Your task to perform on an android device: make emails show in primary in the gmail app Image 0: 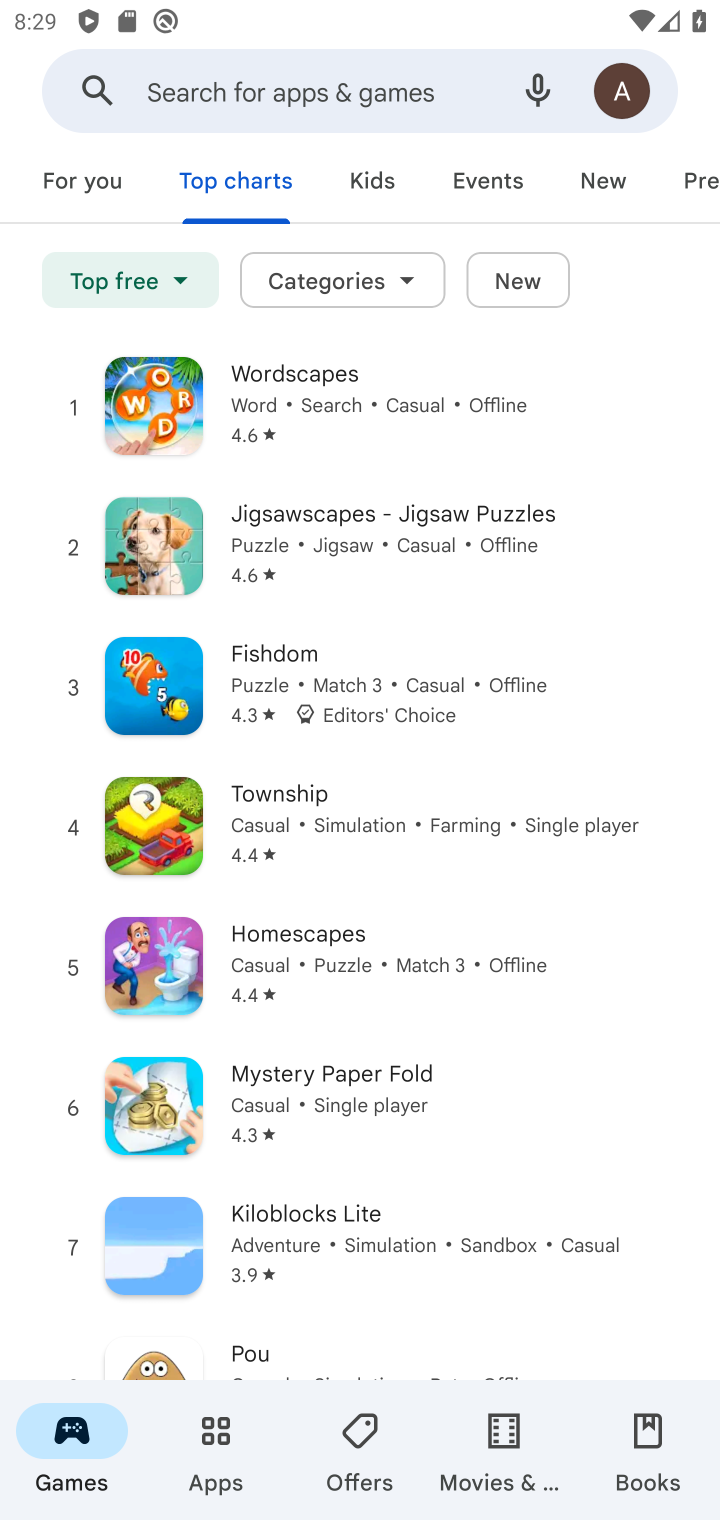
Step 0: press home button
Your task to perform on an android device: make emails show in primary in the gmail app Image 1: 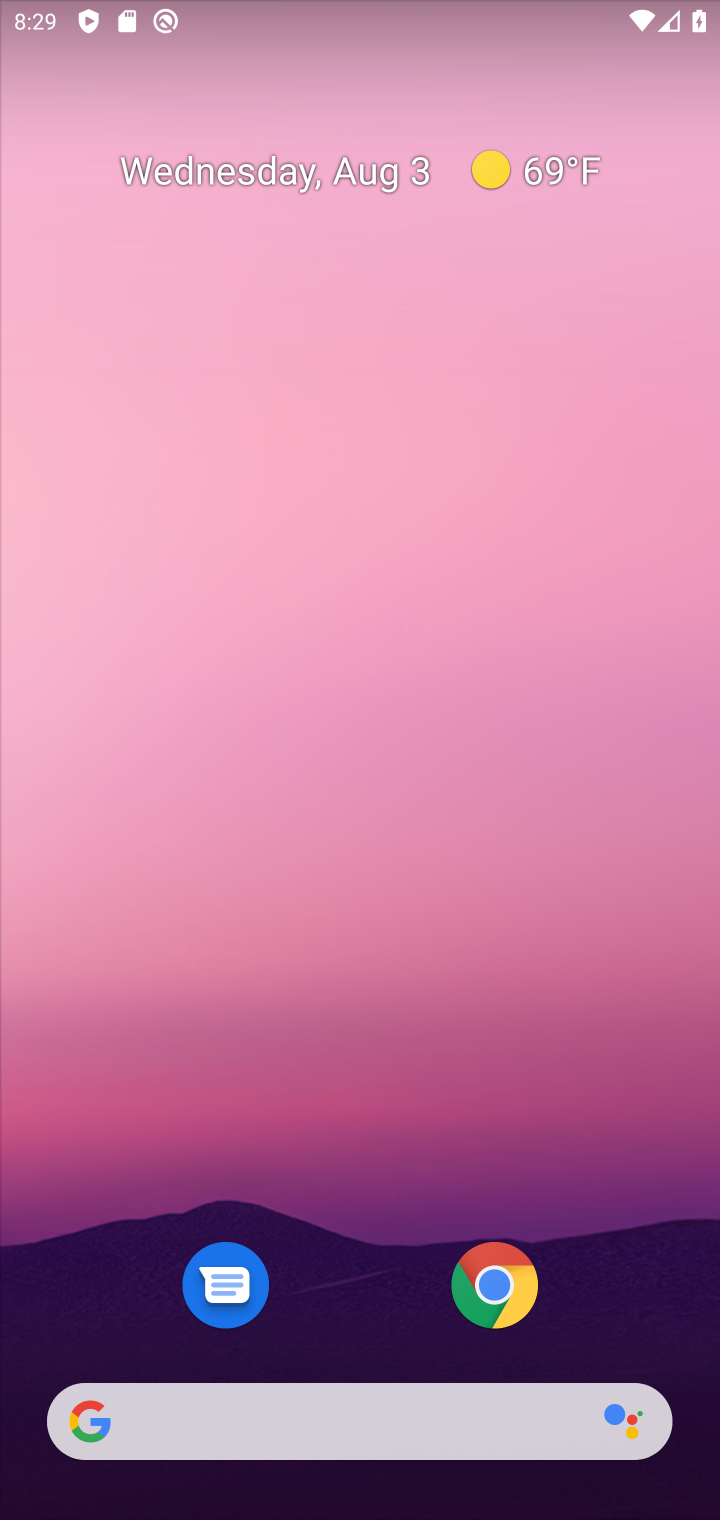
Step 1: drag from (676, 1282) to (644, 634)
Your task to perform on an android device: make emails show in primary in the gmail app Image 2: 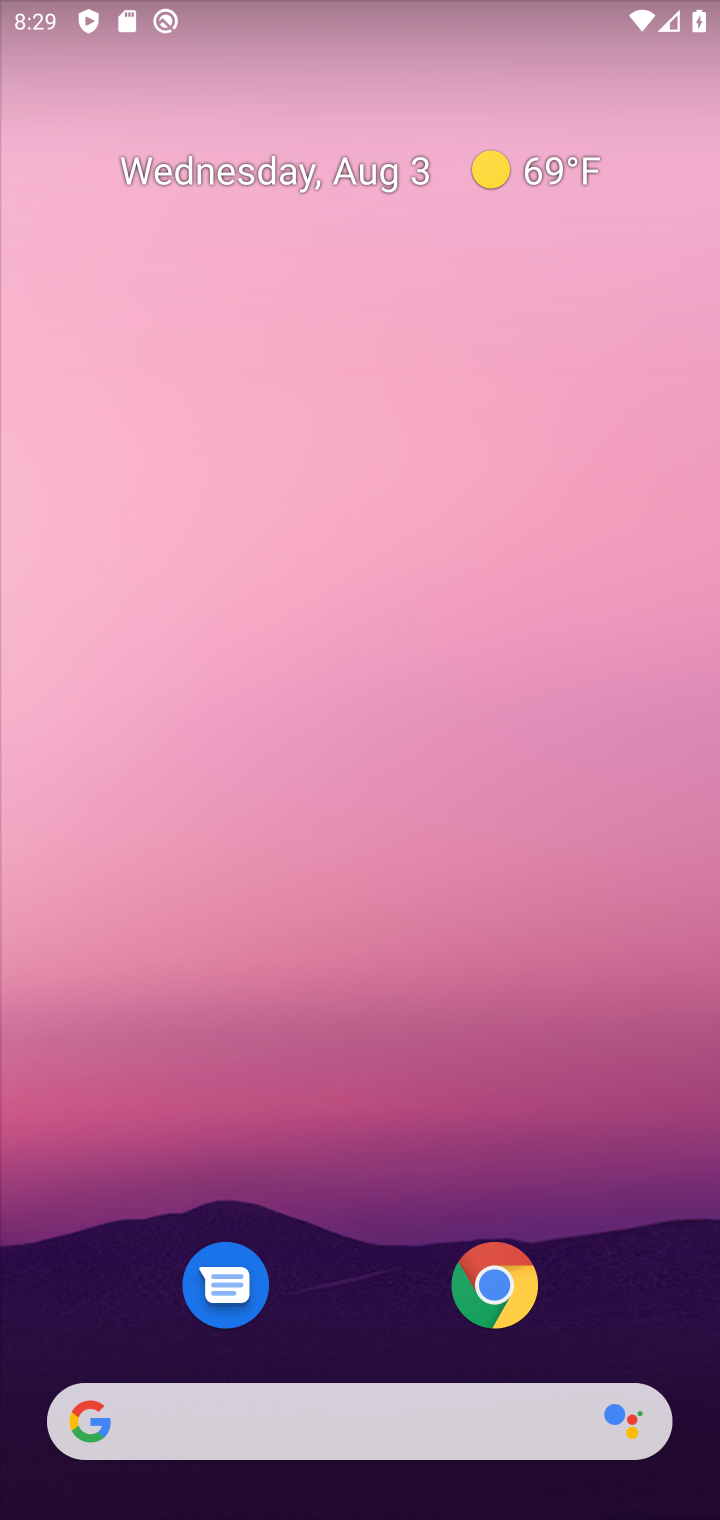
Step 2: drag from (598, 1265) to (532, 317)
Your task to perform on an android device: make emails show in primary in the gmail app Image 3: 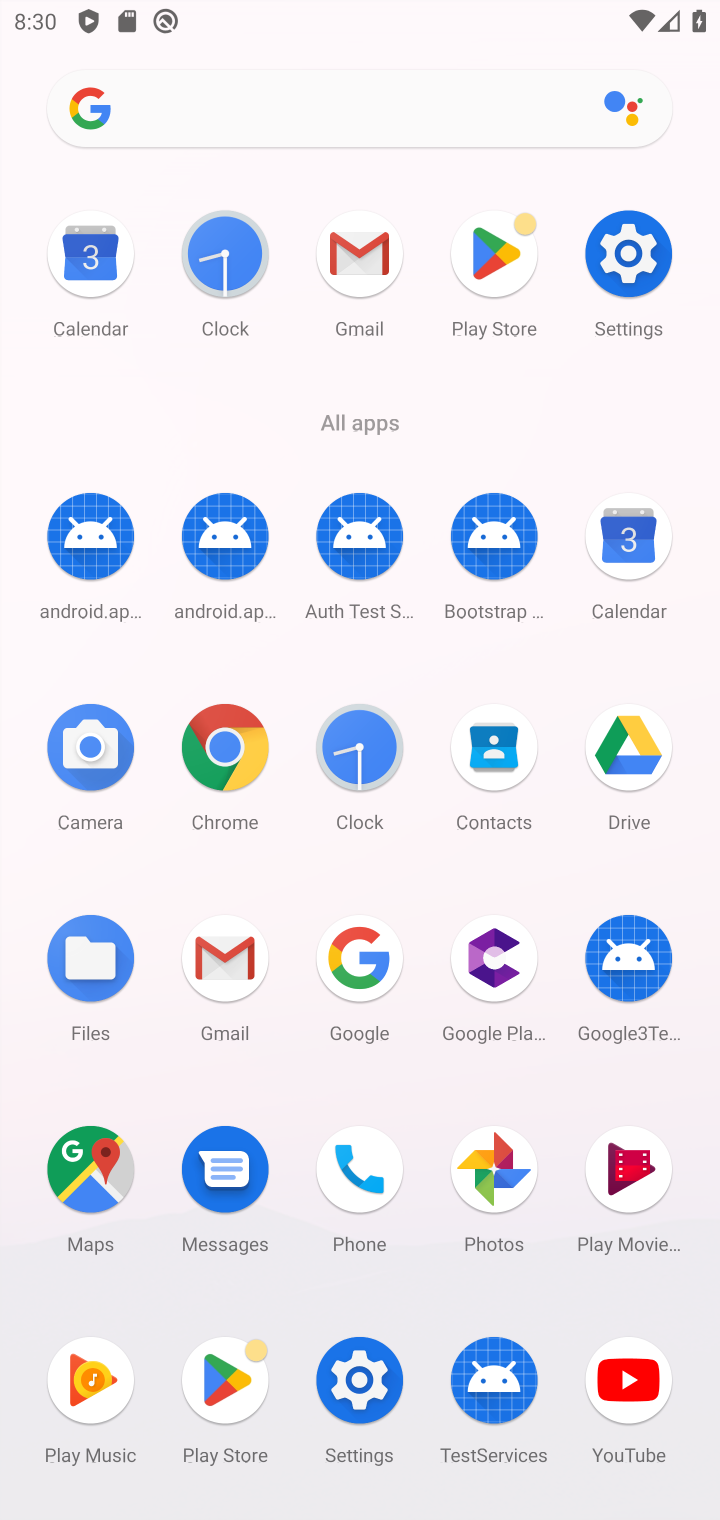
Step 3: click (228, 962)
Your task to perform on an android device: make emails show in primary in the gmail app Image 4: 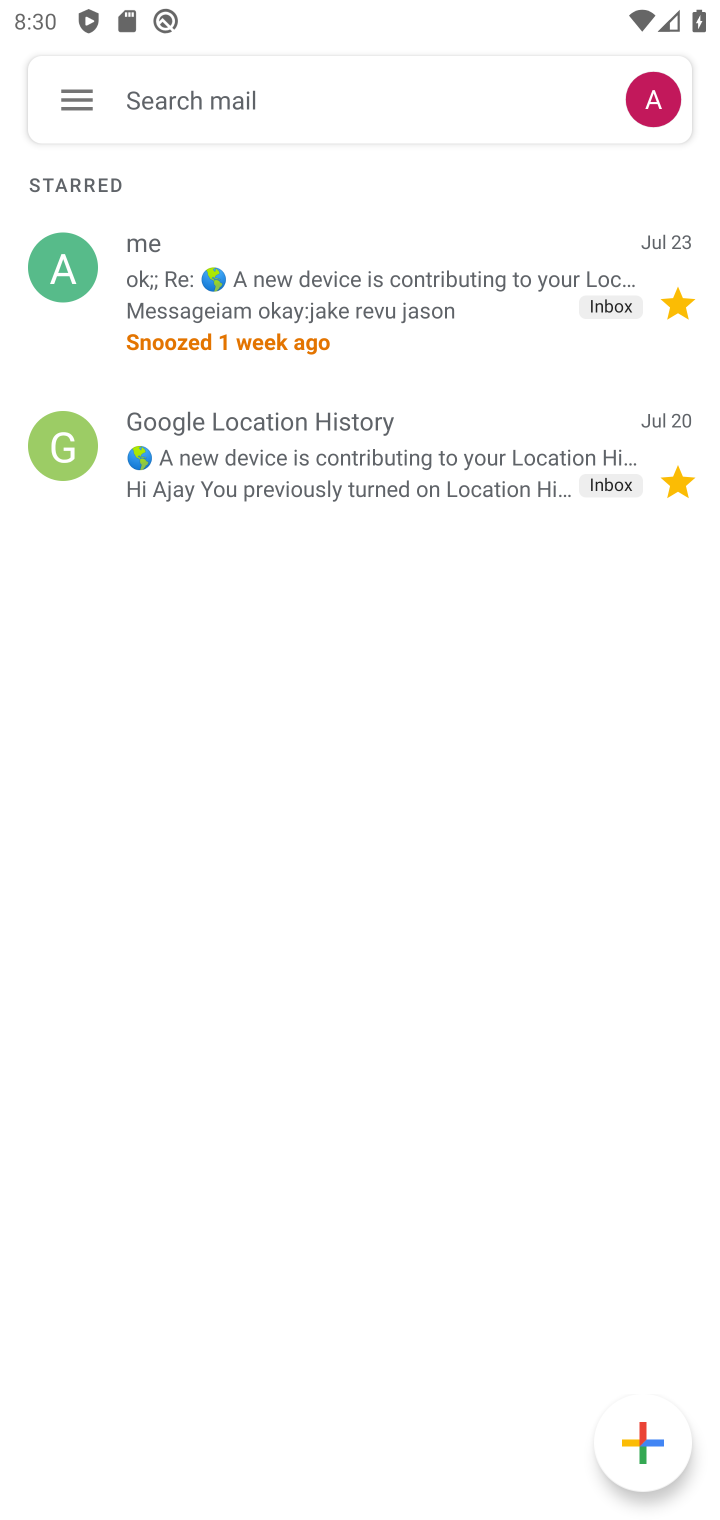
Step 4: click (72, 108)
Your task to perform on an android device: make emails show in primary in the gmail app Image 5: 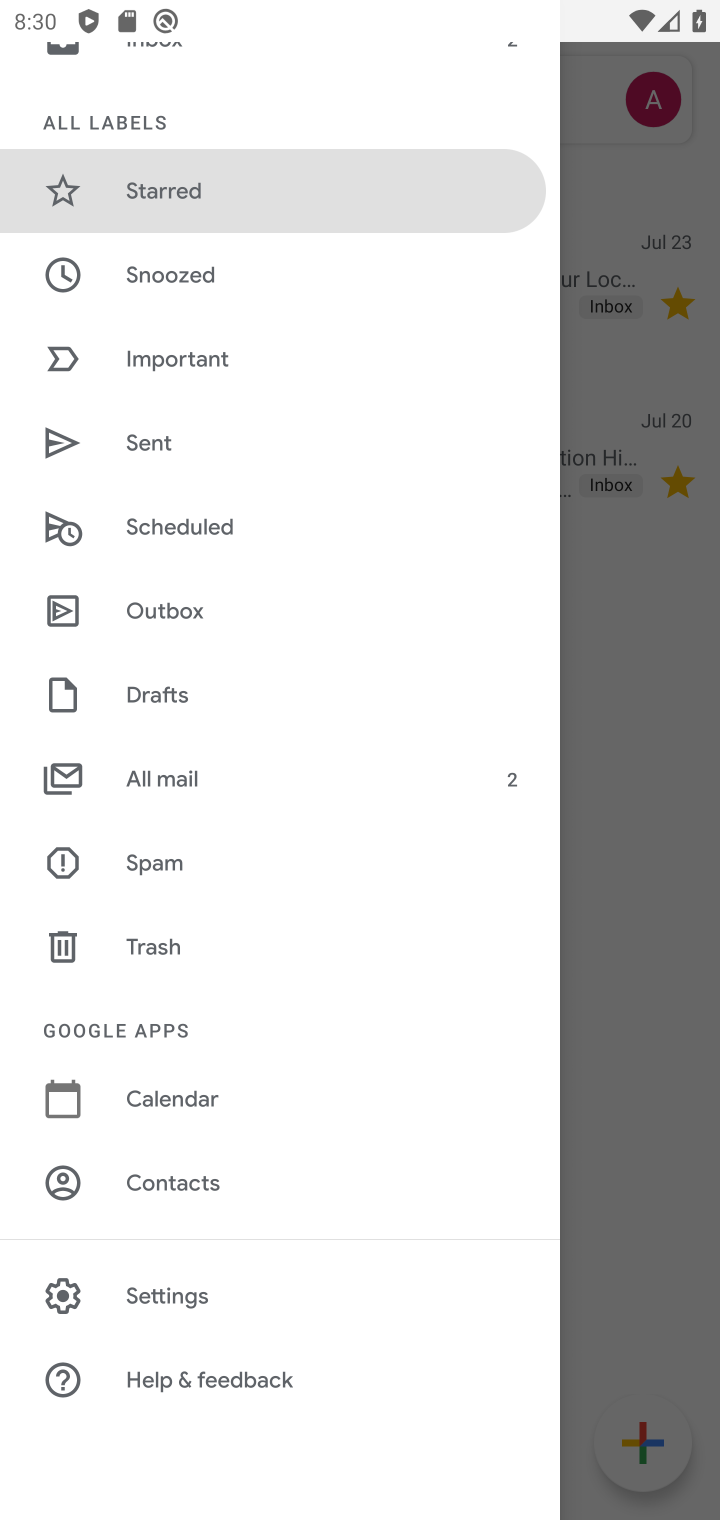
Step 5: click (245, 1285)
Your task to perform on an android device: make emails show in primary in the gmail app Image 6: 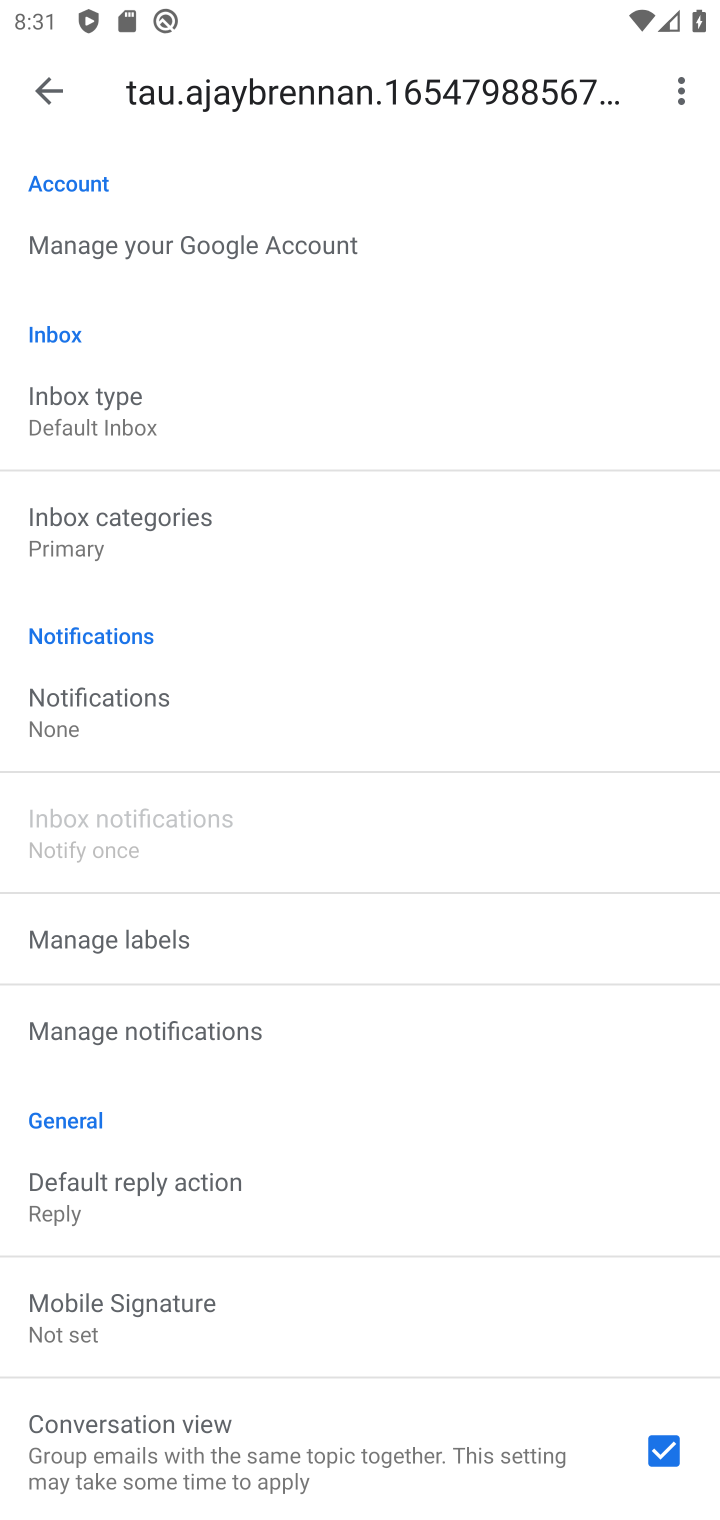
Step 6: task complete